Your task to perform on an android device: turn on location history Image 0: 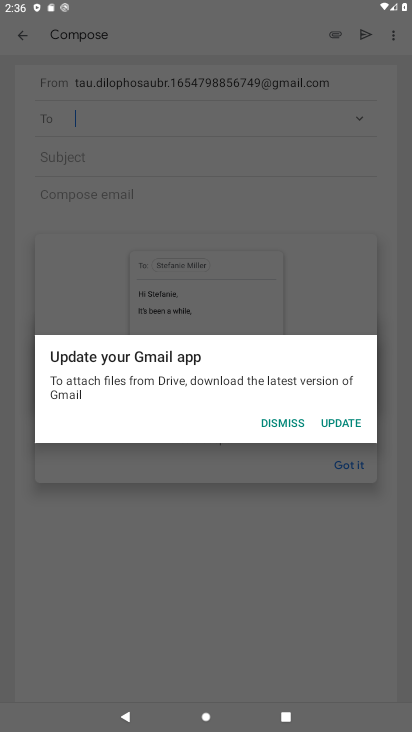
Step 0: press home button
Your task to perform on an android device: turn on location history Image 1: 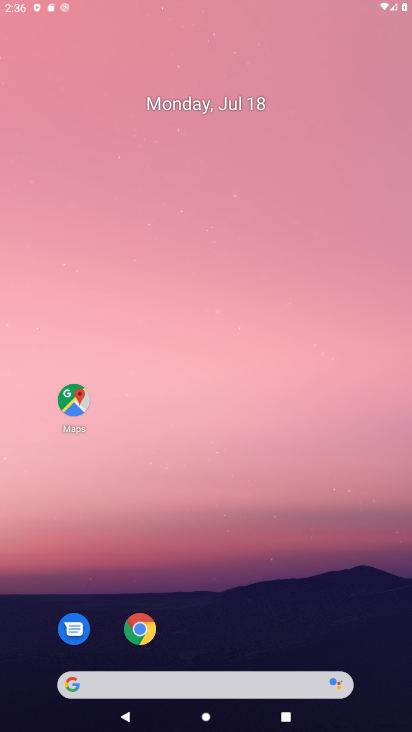
Step 1: press home button
Your task to perform on an android device: turn on location history Image 2: 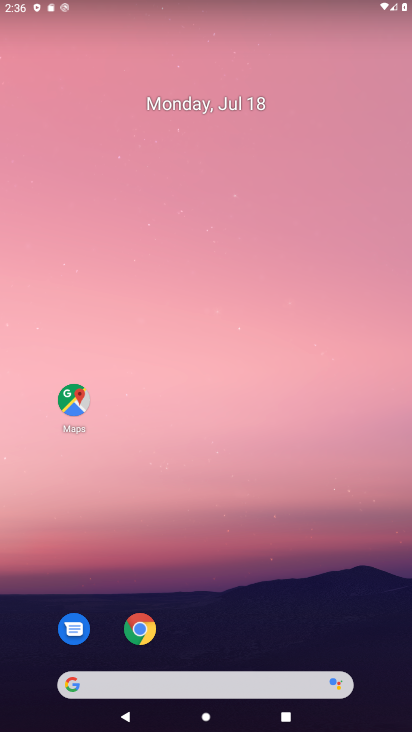
Step 2: drag from (374, 651) to (266, 3)
Your task to perform on an android device: turn on location history Image 3: 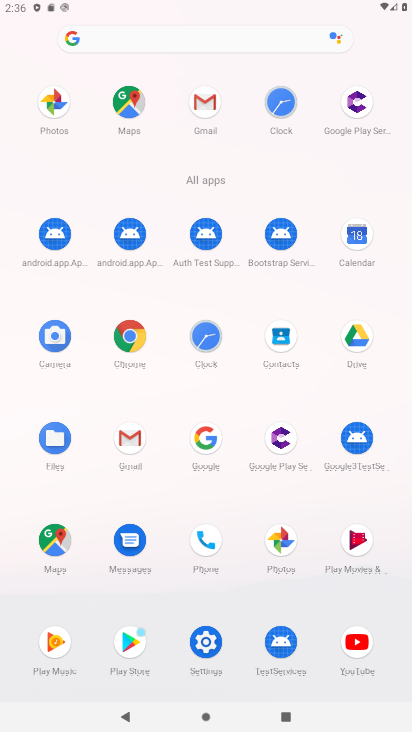
Step 3: click (193, 645)
Your task to perform on an android device: turn on location history Image 4: 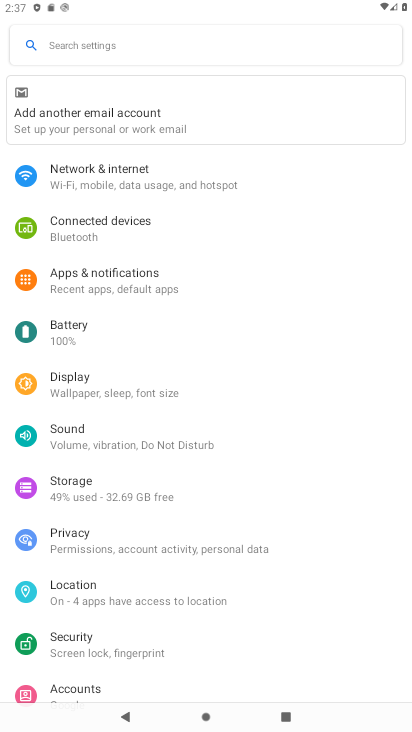
Step 4: click (67, 597)
Your task to perform on an android device: turn on location history Image 5: 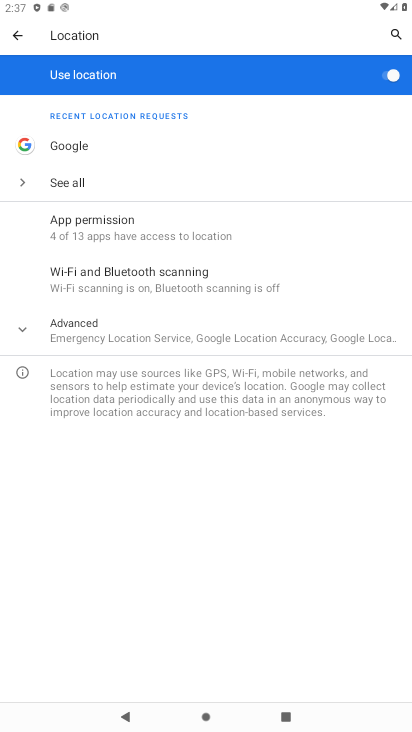
Step 5: click (31, 330)
Your task to perform on an android device: turn on location history Image 6: 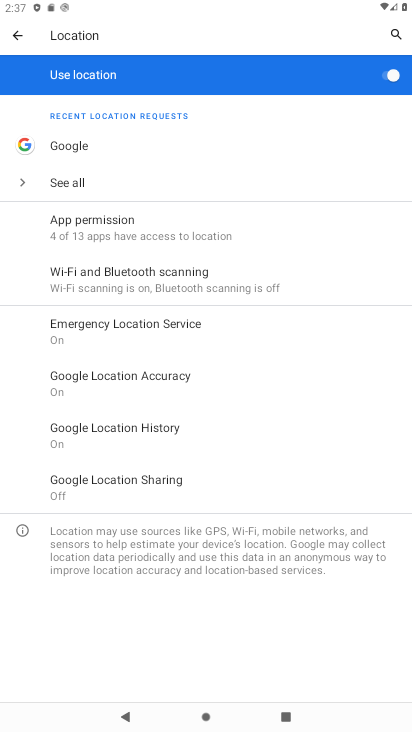
Step 6: click (24, 330)
Your task to perform on an android device: turn on location history Image 7: 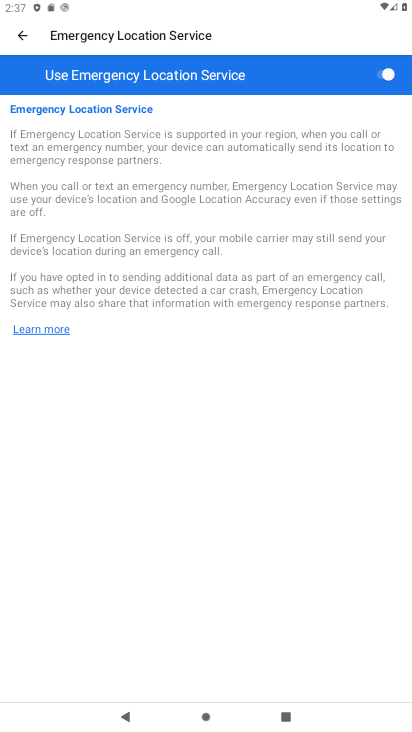
Step 7: task complete